Your task to perform on an android device: check data usage Image 0: 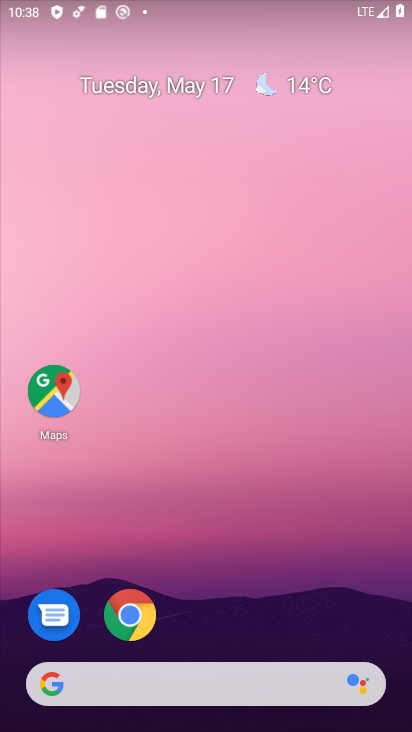
Step 0: drag from (234, 649) to (388, 172)
Your task to perform on an android device: check data usage Image 1: 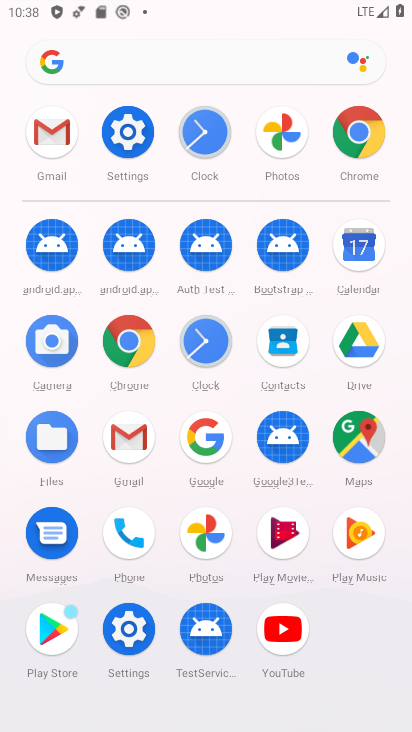
Step 1: click (123, 133)
Your task to perform on an android device: check data usage Image 2: 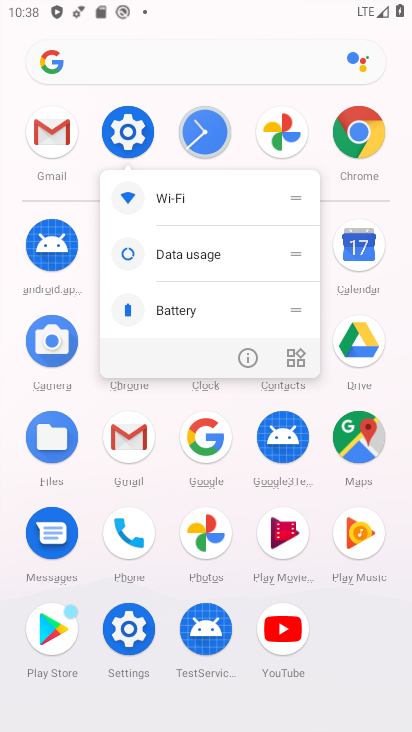
Step 2: click (131, 126)
Your task to perform on an android device: check data usage Image 3: 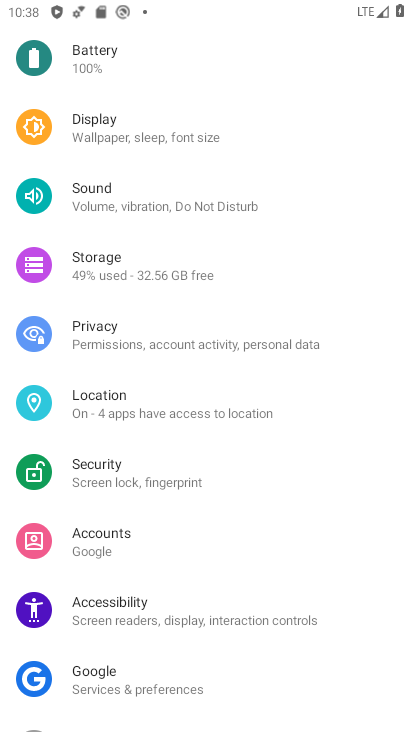
Step 3: drag from (254, 82) to (227, 530)
Your task to perform on an android device: check data usage Image 4: 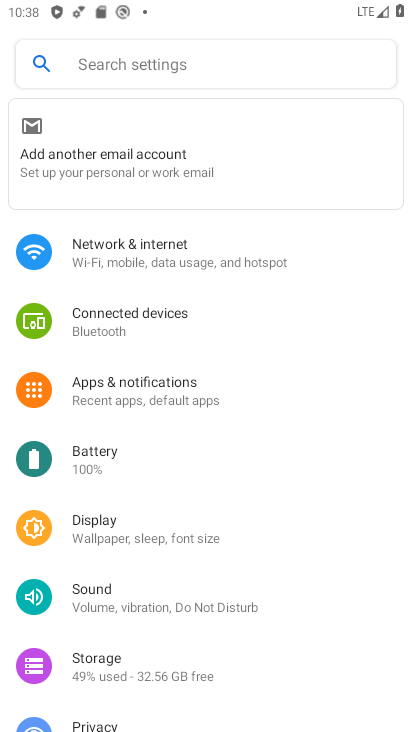
Step 4: click (211, 261)
Your task to perform on an android device: check data usage Image 5: 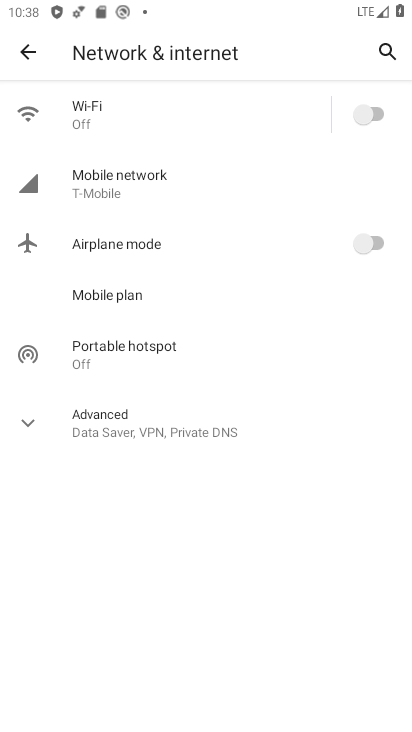
Step 5: click (127, 108)
Your task to perform on an android device: check data usage Image 6: 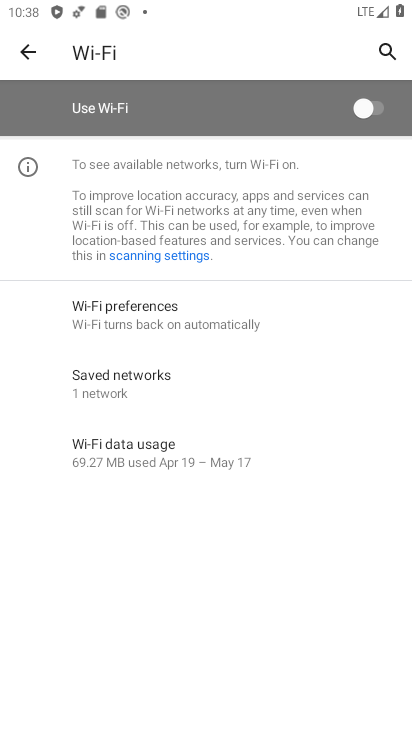
Step 6: click (146, 446)
Your task to perform on an android device: check data usage Image 7: 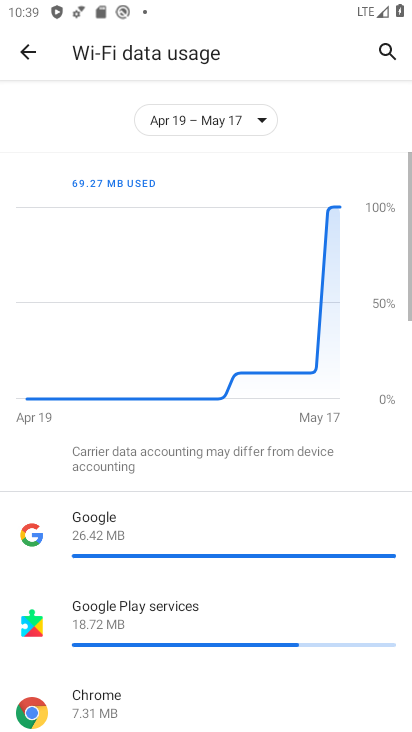
Step 7: task complete